Your task to perform on an android device: check android version Image 0: 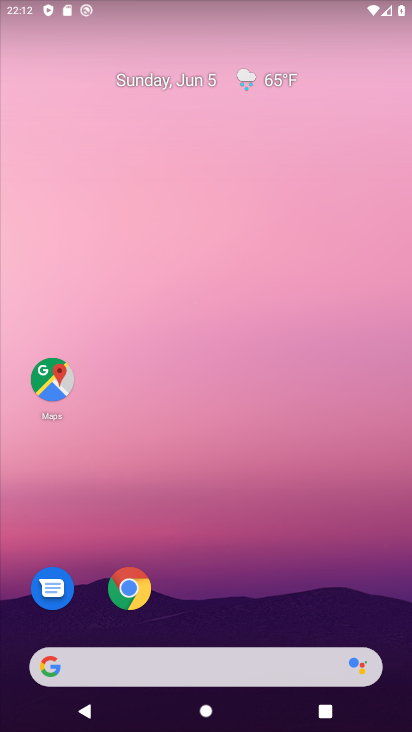
Step 0: drag from (215, 632) to (288, 147)
Your task to perform on an android device: check android version Image 1: 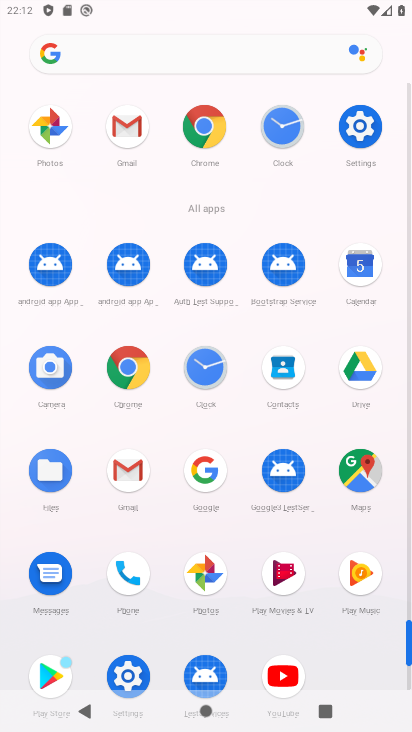
Step 1: drag from (197, 676) to (248, 391)
Your task to perform on an android device: check android version Image 2: 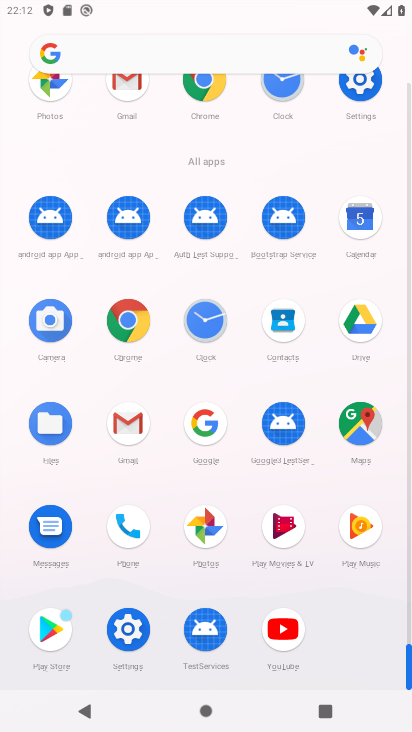
Step 2: click (123, 646)
Your task to perform on an android device: check android version Image 3: 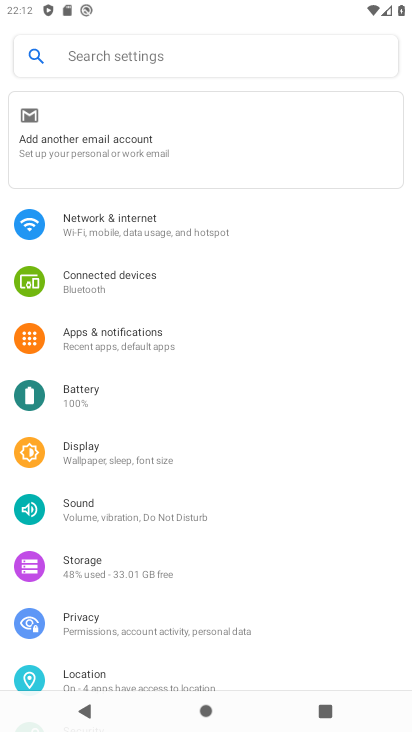
Step 3: drag from (138, 696) to (264, 190)
Your task to perform on an android device: check android version Image 4: 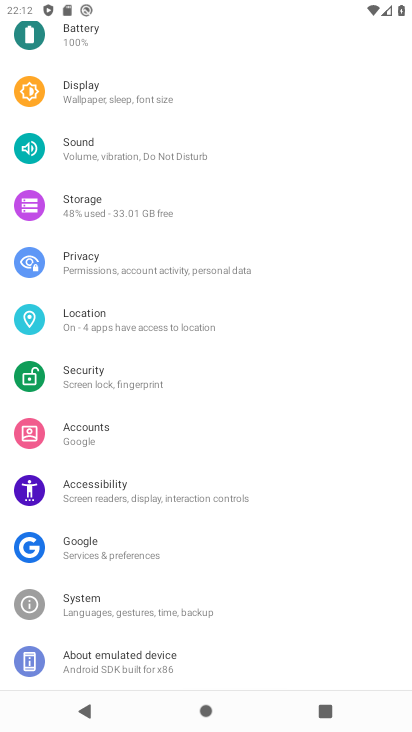
Step 4: drag from (200, 701) to (307, 260)
Your task to perform on an android device: check android version Image 5: 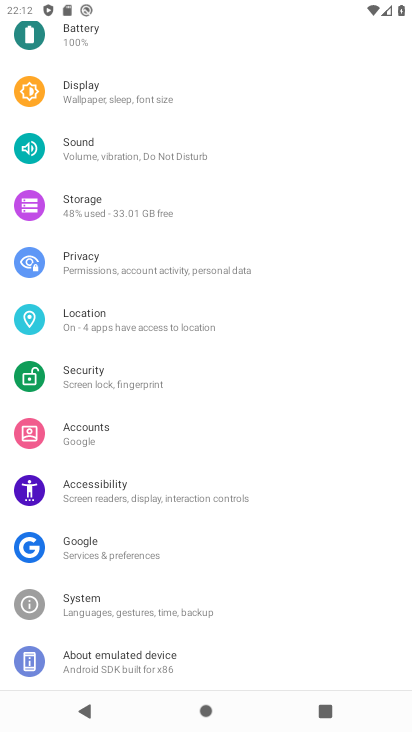
Step 5: click (193, 673)
Your task to perform on an android device: check android version Image 6: 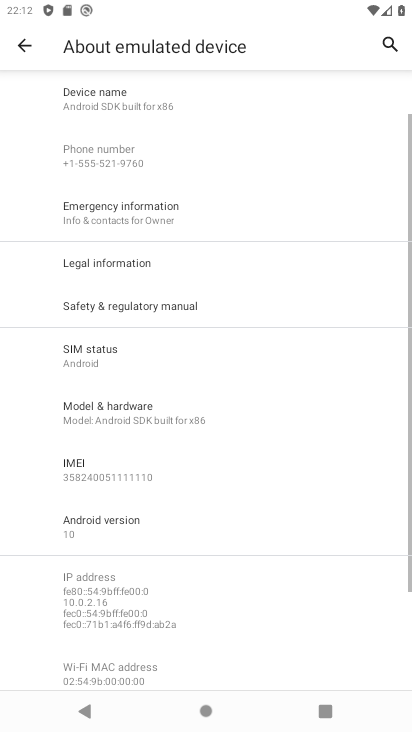
Step 6: click (185, 535)
Your task to perform on an android device: check android version Image 7: 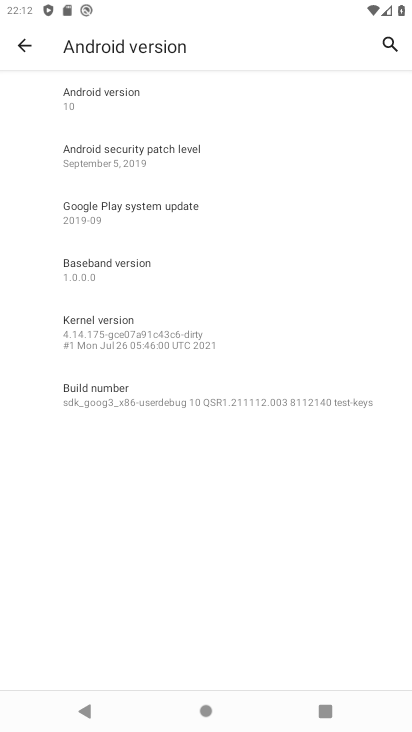
Step 7: task complete